Your task to perform on an android device: choose inbox layout in the gmail app Image 0: 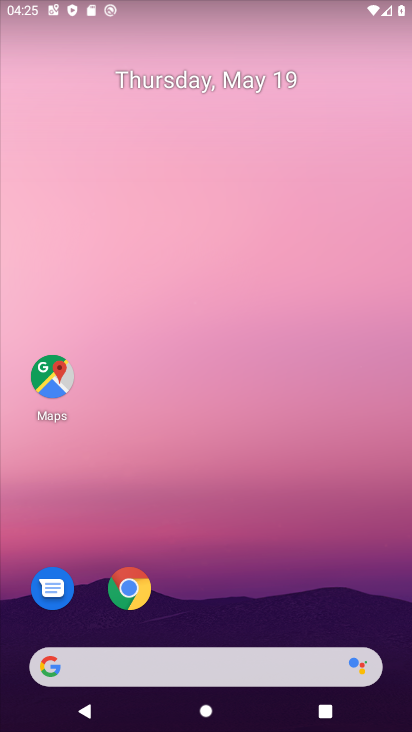
Step 0: drag from (220, 619) to (287, 141)
Your task to perform on an android device: choose inbox layout in the gmail app Image 1: 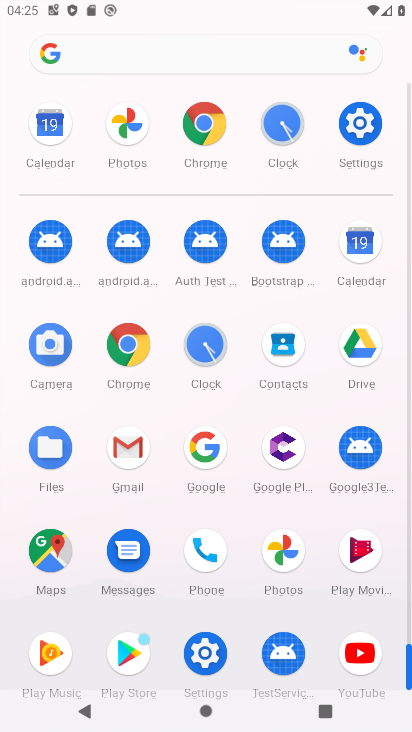
Step 1: click (125, 442)
Your task to perform on an android device: choose inbox layout in the gmail app Image 2: 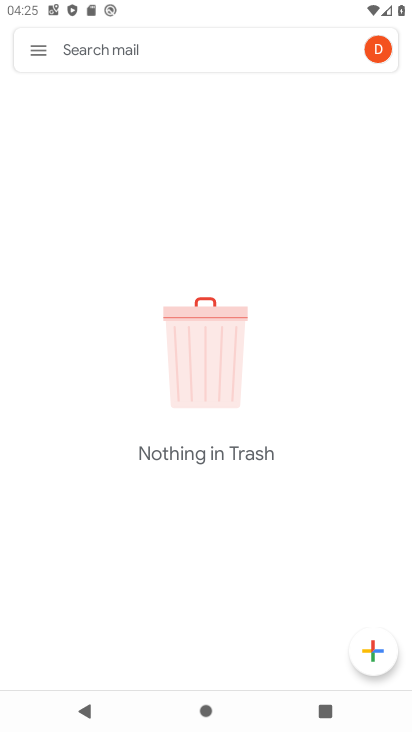
Step 2: click (38, 44)
Your task to perform on an android device: choose inbox layout in the gmail app Image 3: 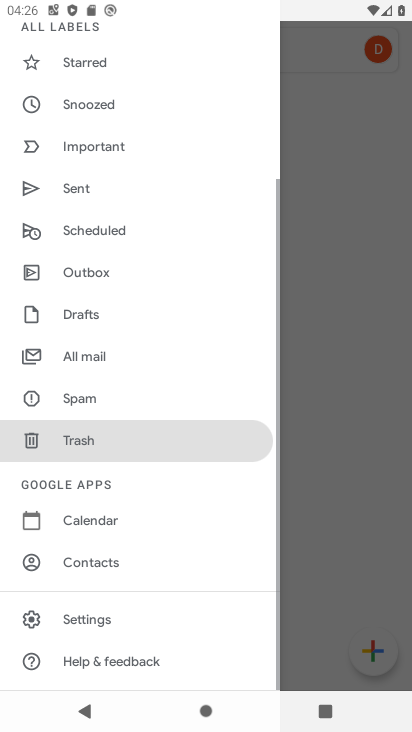
Step 3: click (94, 627)
Your task to perform on an android device: choose inbox layout in the gmail app Image 4: 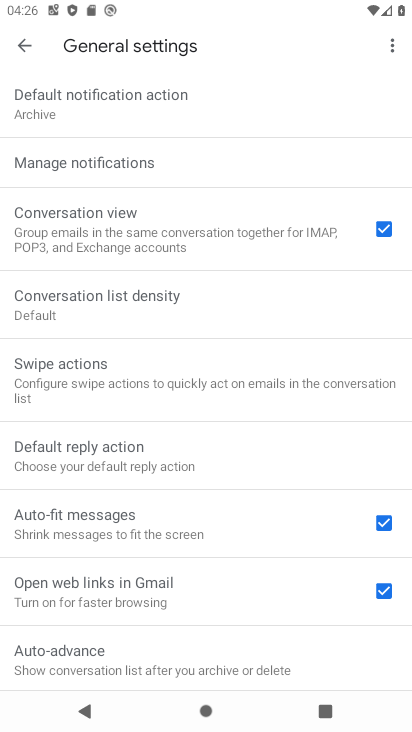
Step 4: click (29, 41)
Your task to perform on an android device: choose inbox layout in the gmail app Image 5: 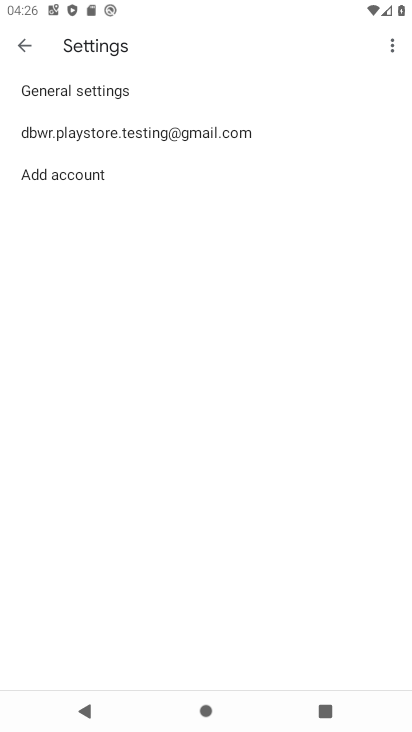
Step 5: click (126, 131)
Your task to perform on an android device: choose inbox layout in the gmail app Image 6: 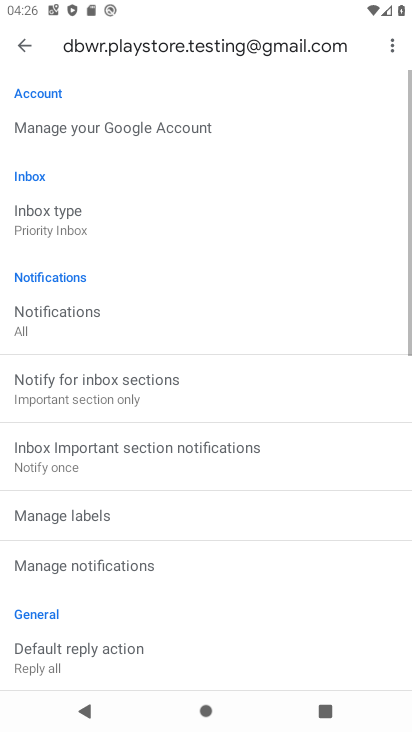
Step 6: click (71, 215)
Your task to perform on an android device: choose inbox layout in the gmail app Image 7: 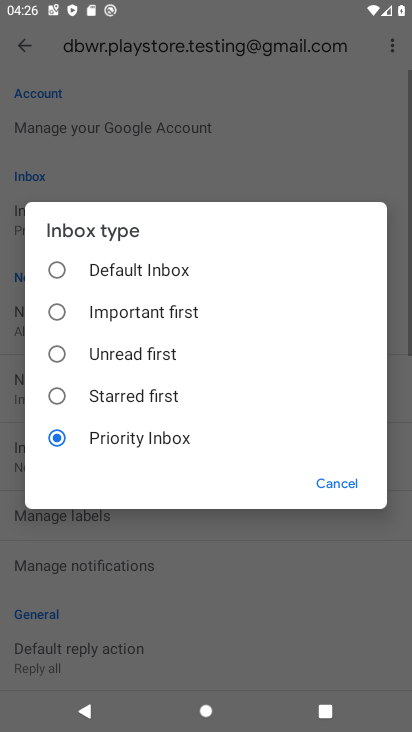
Step 7: click (121, 266)
Your task to perform on an android device: choose inbox layout in the gmail app Image 8: 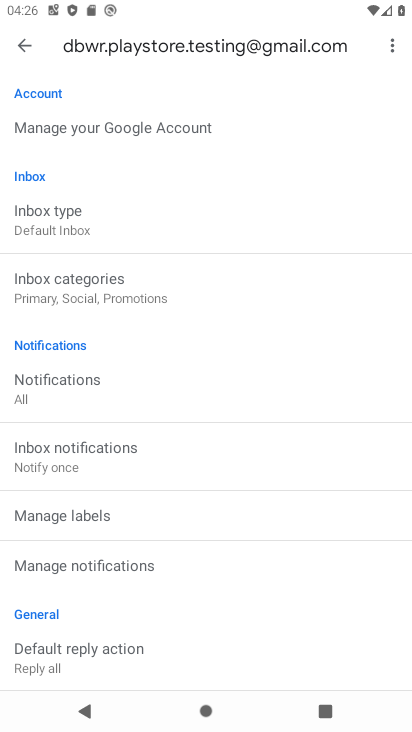
Step 8: task complete